Your task to perform on an android device: Go to ESPN.com Image 0: 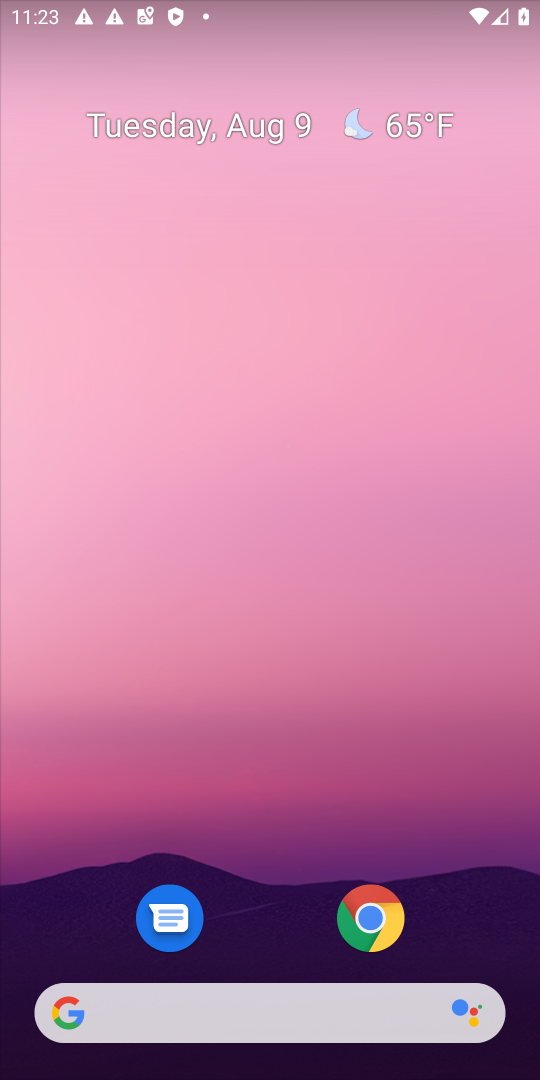
Step 0: drag from (252, 887) to (247, 206)
Your task to perform on an android device: Go to ESPN.com Image 1: 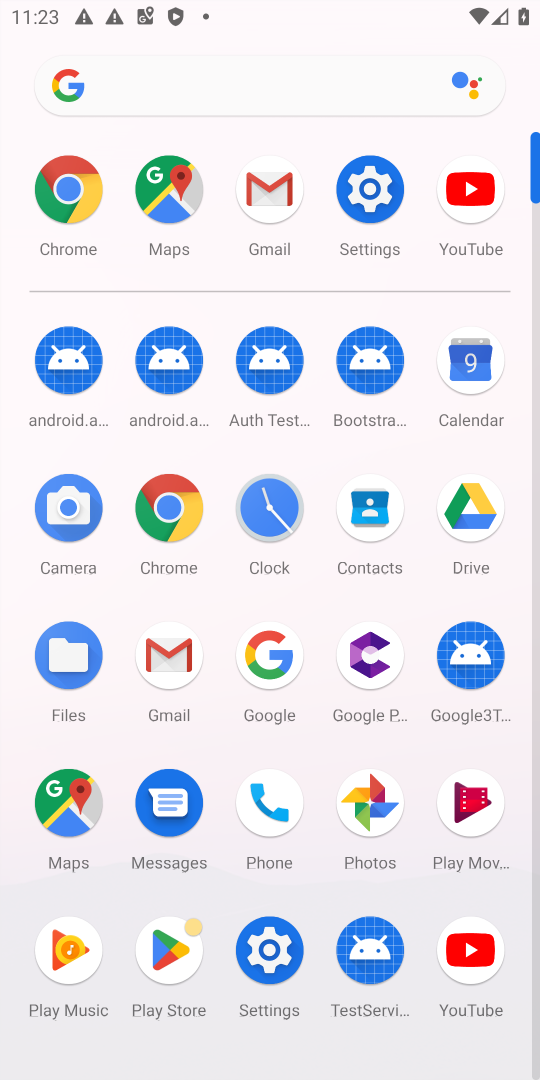
Step 1: click (171, 503)
Your task to perform on an android device: Go to ESPN.com Image 2: 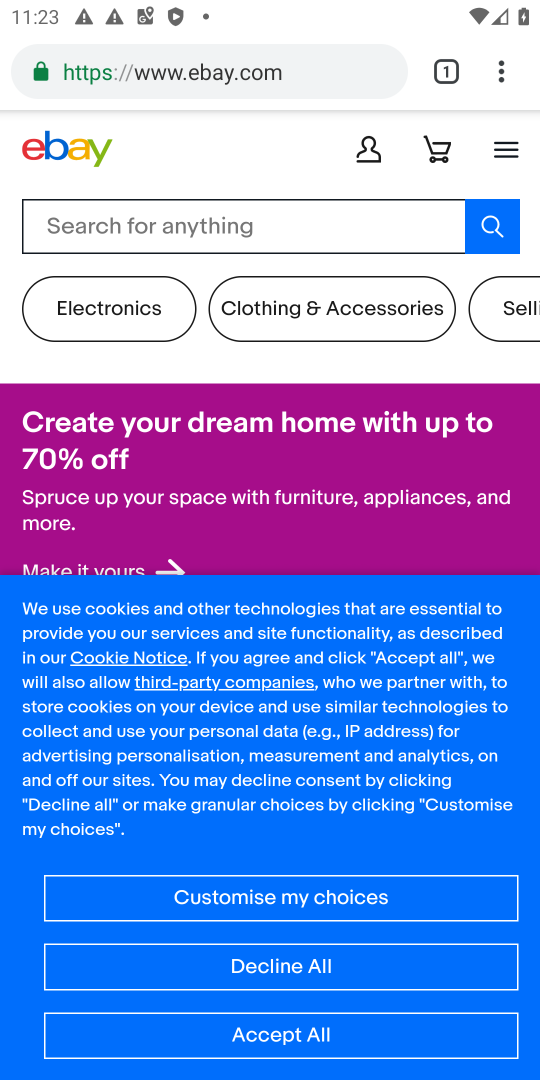
Step 2: click (212, 49)
Your task to perform on an android device: Go to ESPN.com Image 3: 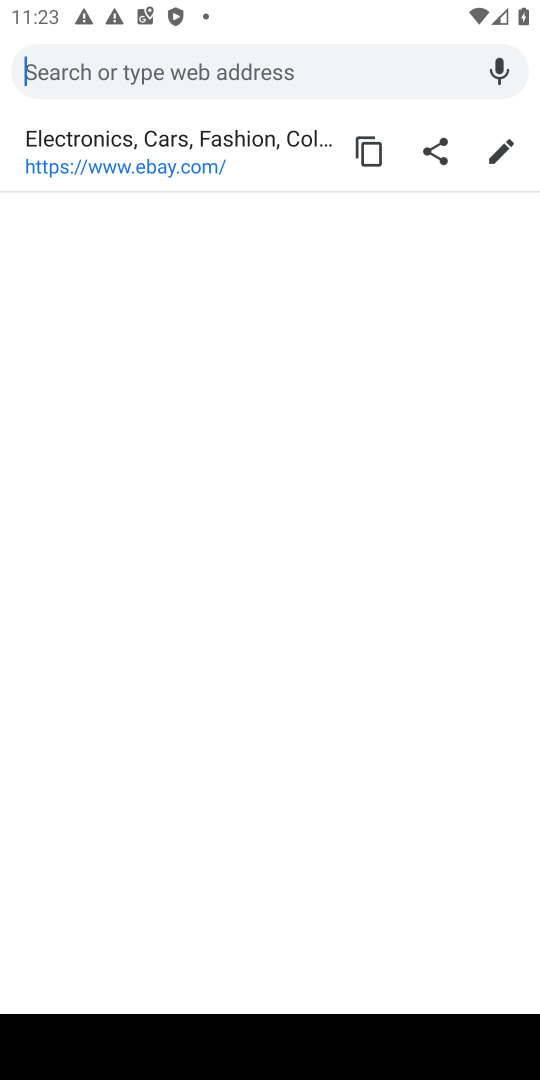
Step 3: type "espn.com"
Your task to perform on an android device: Go to ESPN.com Image 4: 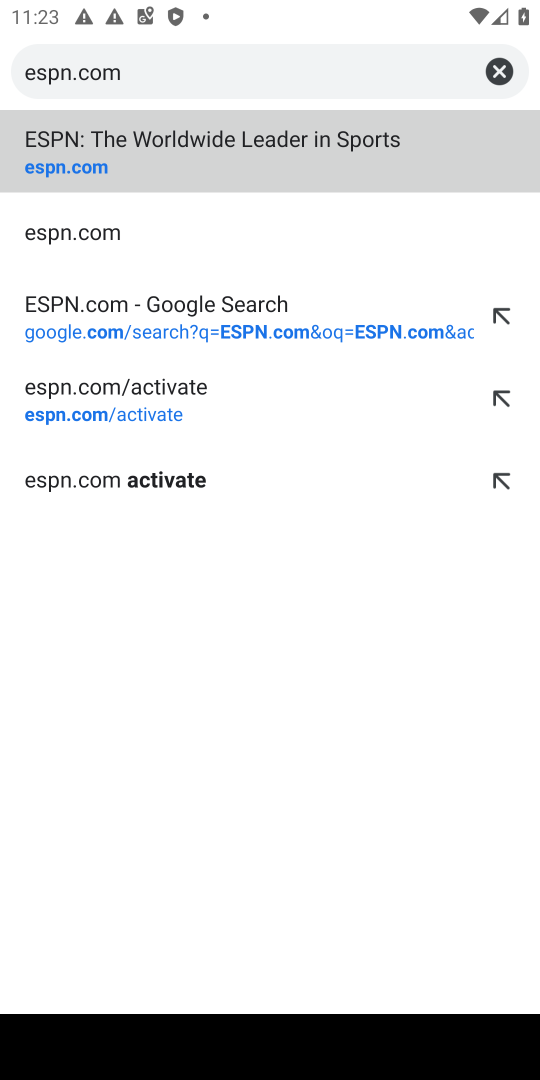
Step 4: click (82, 153)
Your task to perform on an android device: Go to ESPN.com Image 5: 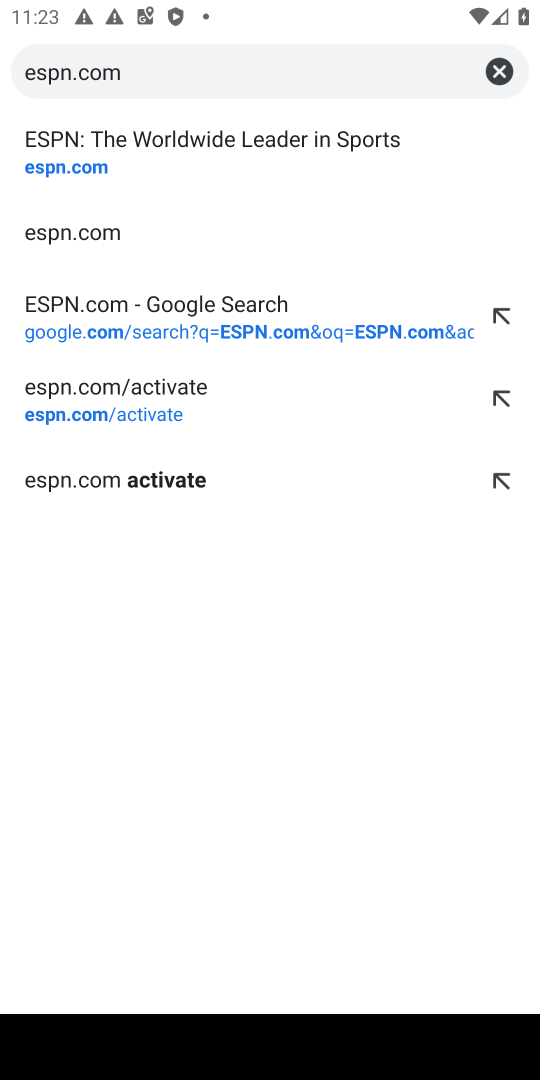
Step 5: click (37, 162)
Your task to perform on an android device: Go to ESPN.com Image 6: 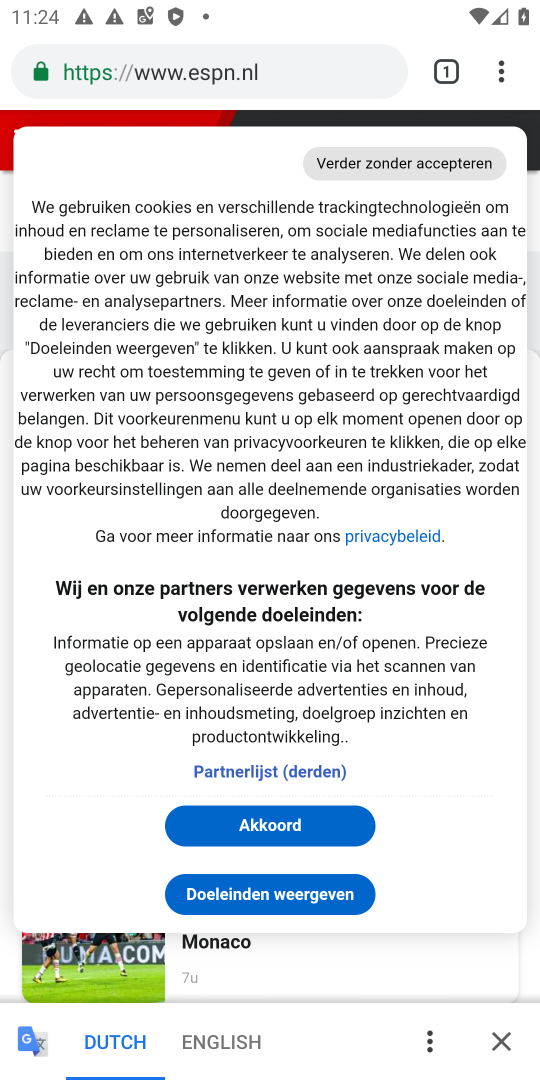
Step 6: task complete